Your task to perform on an android device: Check the news Image 0: 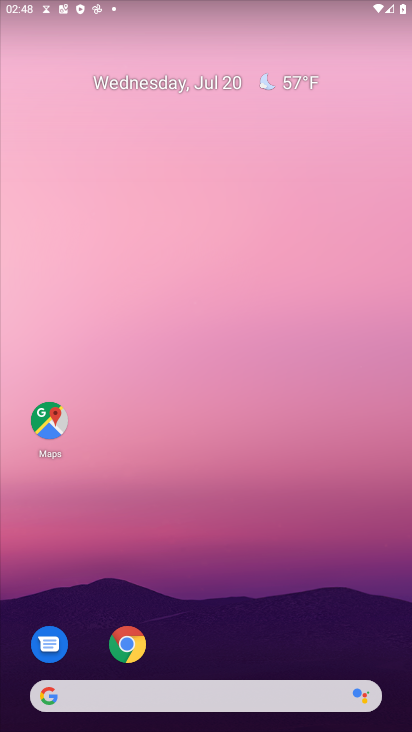
Step 0: press home button
Your task to perform on an android device: Check the news Image 1: 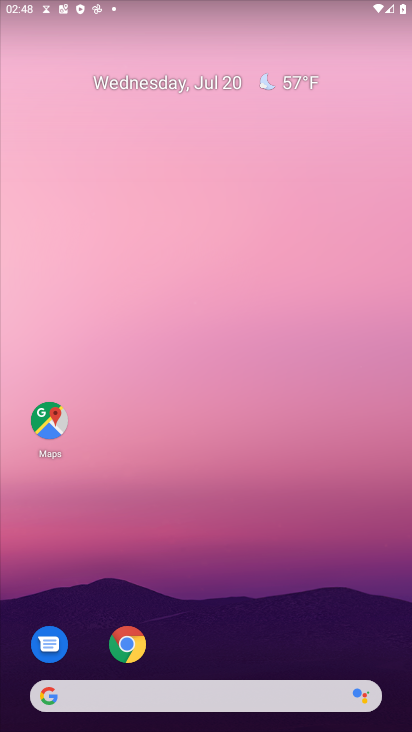
Step 1: press home button
Your task to perform on an android device: Check the news Image 2: 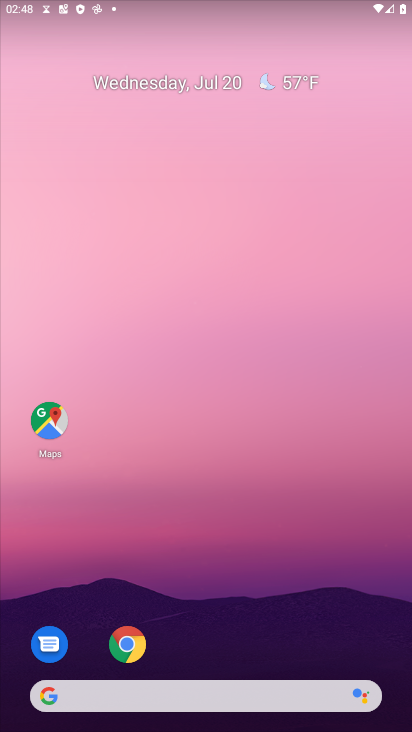
Step 2: click (42, 690)
Your task to perform on an android device: Check the news Image 3: 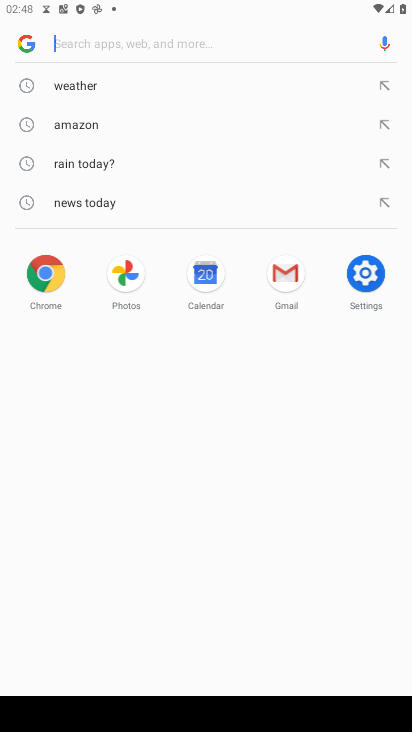
Step 3: type " news"
Your task to perform on an android device: Check the news Image 4: 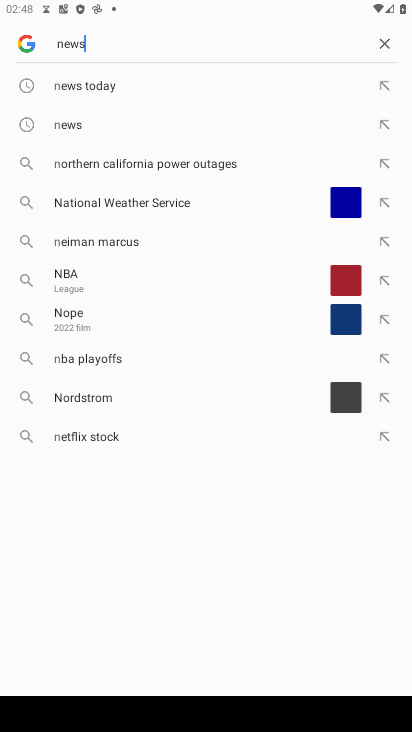
Step 4: press enter
Your task to perform on an android device: Check the news Image 5: 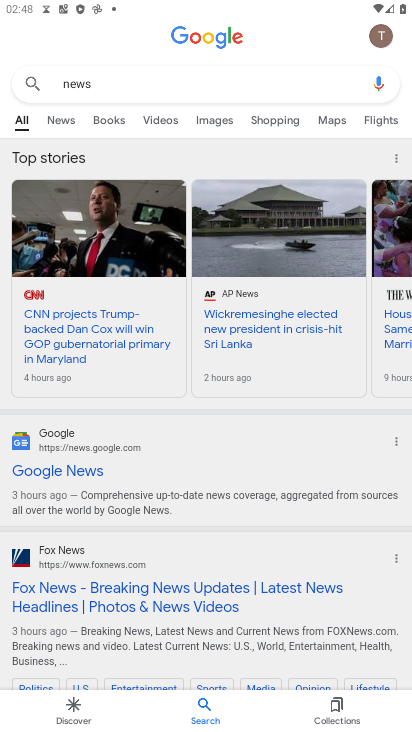
Step 5: task complete